Your task to perform on an android device: What is the news today? Image 0: 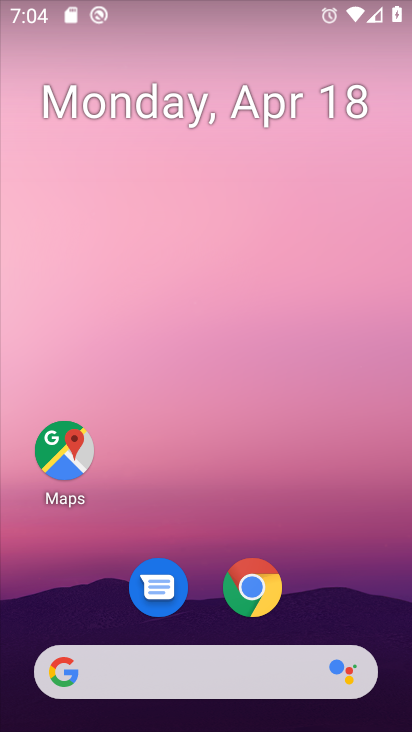
Step 0: drag from (340, 591) to (272, 185)
Your task to perform on an android device: What is the news today? Image 1: 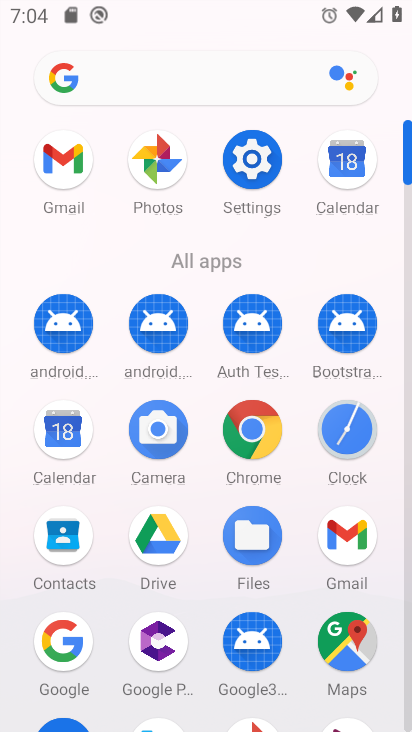
Step 1: click (259, 422)
Your task to perform on an android device: What is the news today? Image 2: 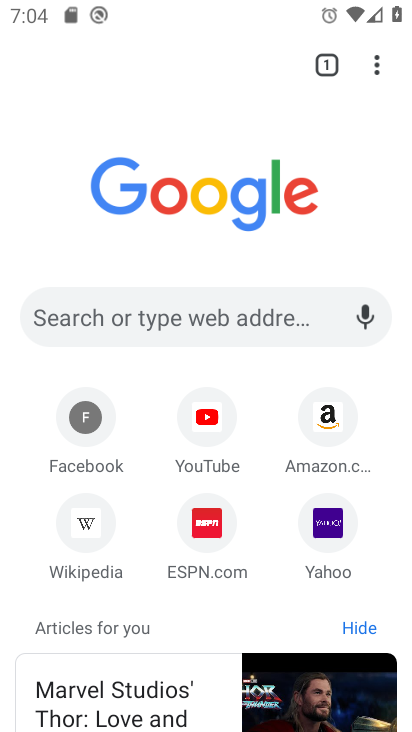
Step 2: task complete